Your task to perform on an android device: turn off location Image 0: 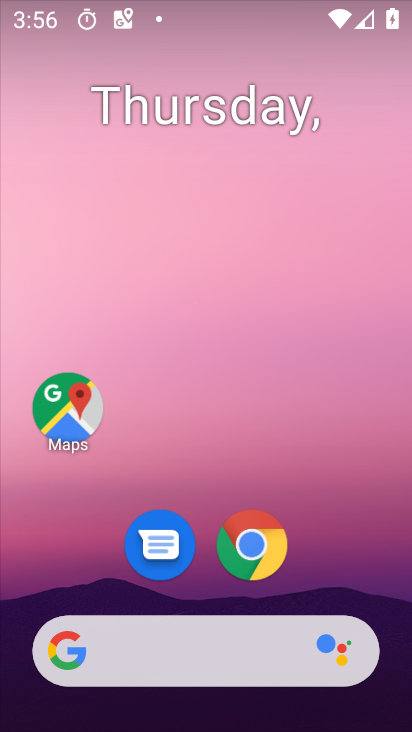
Step 0: drag from (206, 723) to (204, 52)
Your task to perform on an android device: turn off location Image 1: 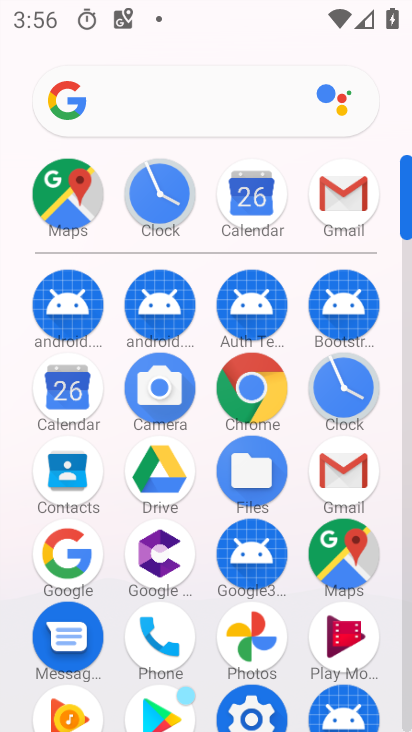
Step 1: click (254, 706)
Your task to perform on an android device: turn off location Image 2: 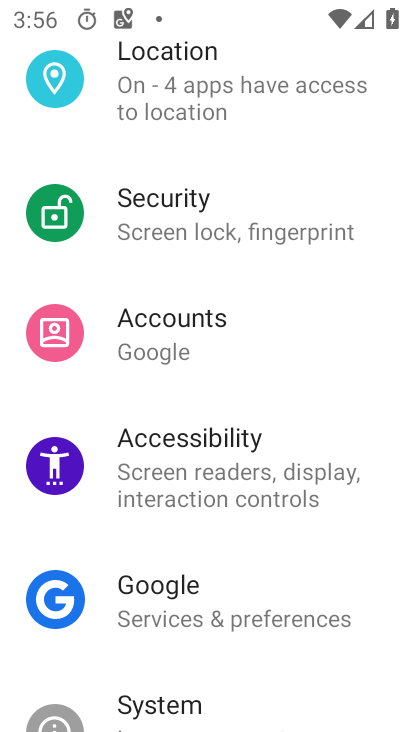
Step 2: click (168, 95)
Your task to perform on an android device: turn off location Image 3: 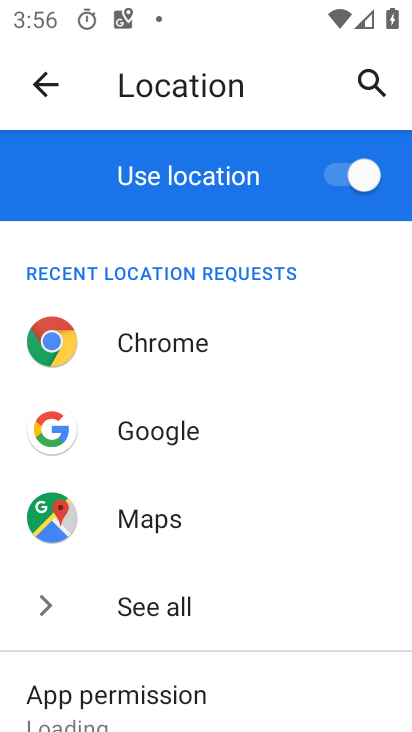
Step 3: drag from (228, 695) to (218, 521)
Your task to perform on an android device: turn off location Image 4: 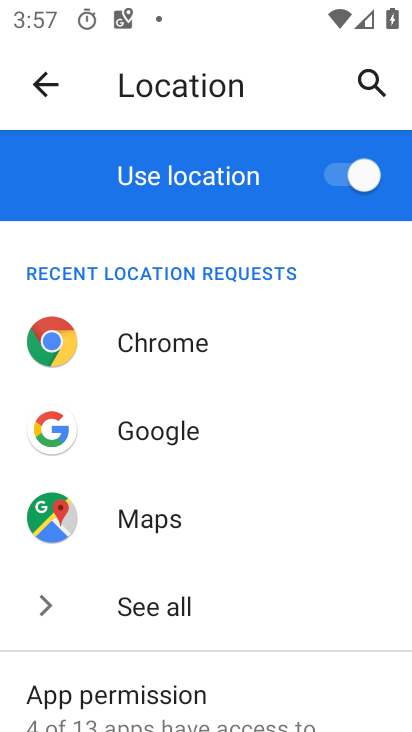
Step 4: click (343, 169)
Your task to perform on an android device: turn off location Image 5: 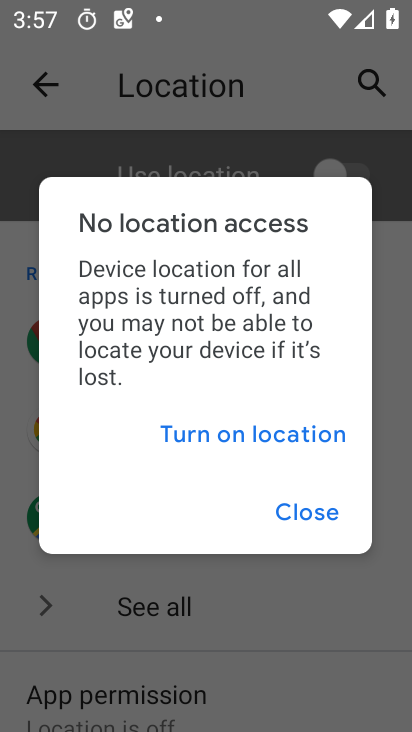
Step 5: click (312, 511)
Your task to perform on an android device: turn off location Image 6: 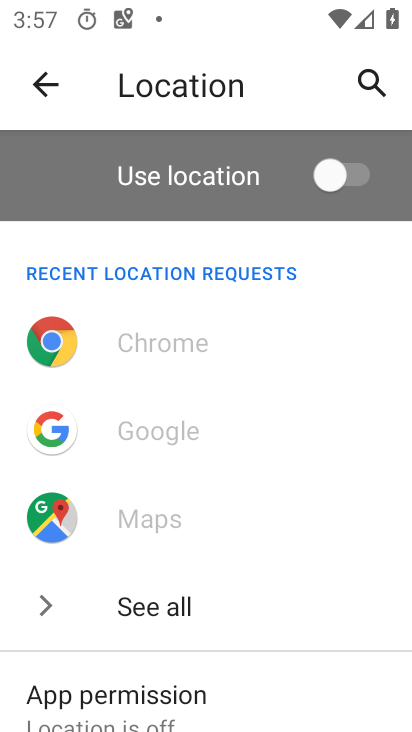
Step 6: task complete